Your task to perform on an android device: open app "Messenger Lite" (install if not already installed) and go to login screen Image 0: 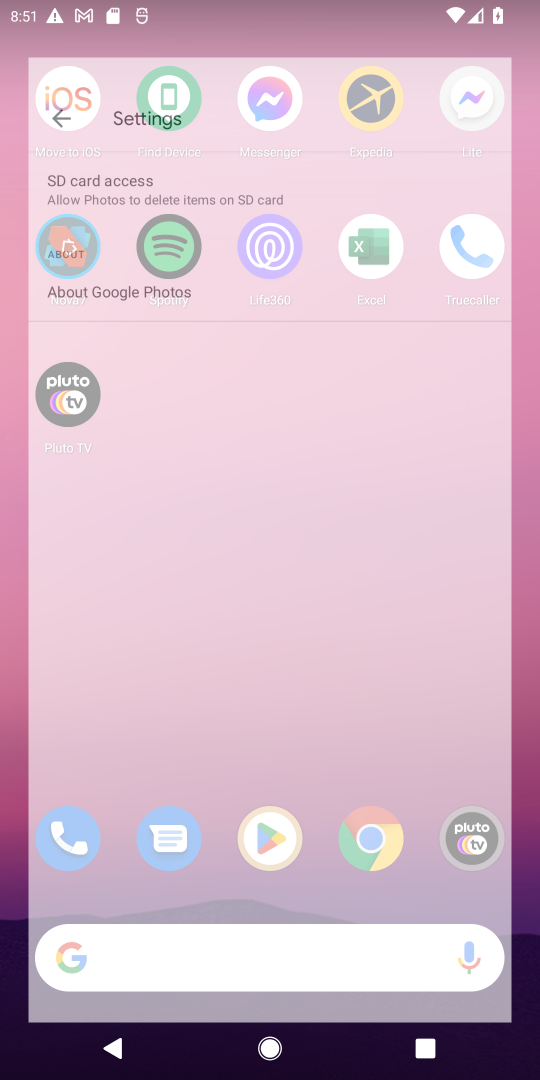
Step 0: press home button
Your task to perform on an android device: open app "Messenger Lite" (install if not already installed) and go to login screen Image 1: 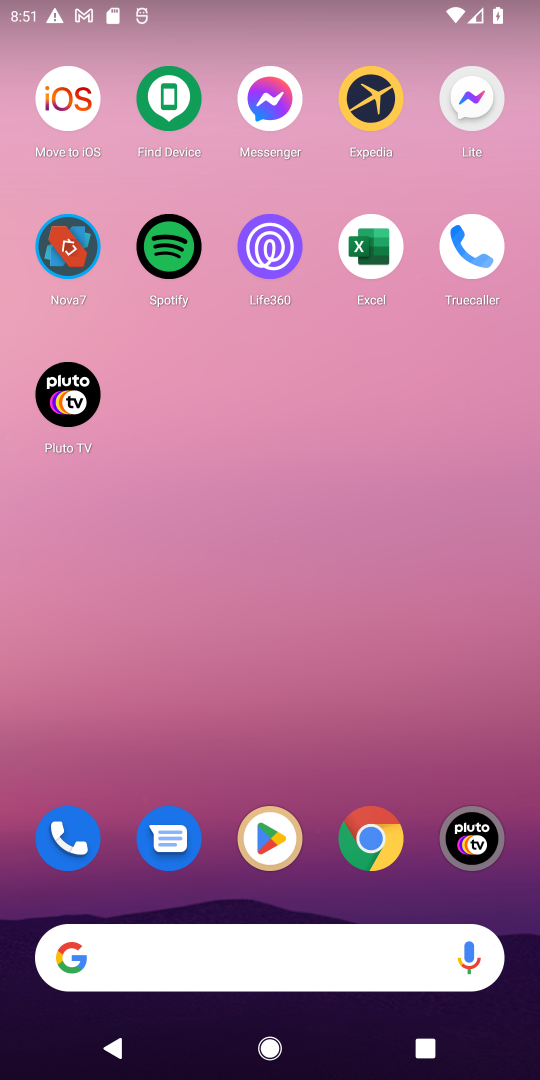
Step 1: click (265, 834)
Your task to perform on an android device: open app "Messenger Lite" (install if not already installed) and go to login screen Image 2: 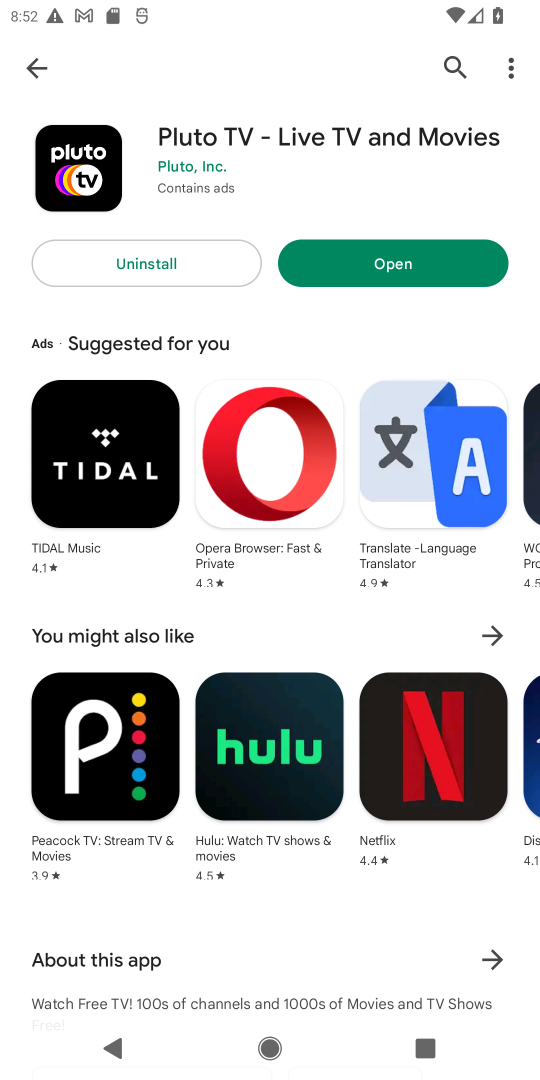
Step 2: click (451, 55)
Your task to perform on an android device: open app "Messenger Lite" (install if not already installed) and go to login screen Image 3: 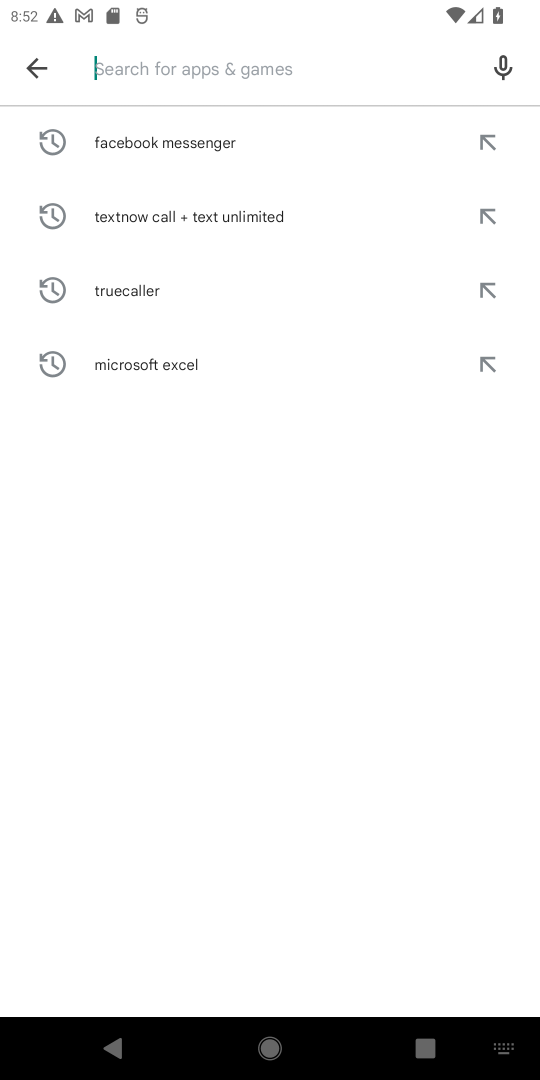
Step 3: type "Messenger Lite"
Your task to perform on an android device: open app "Messenger Lite" (install if not already installed) and go to login screen Image 4: 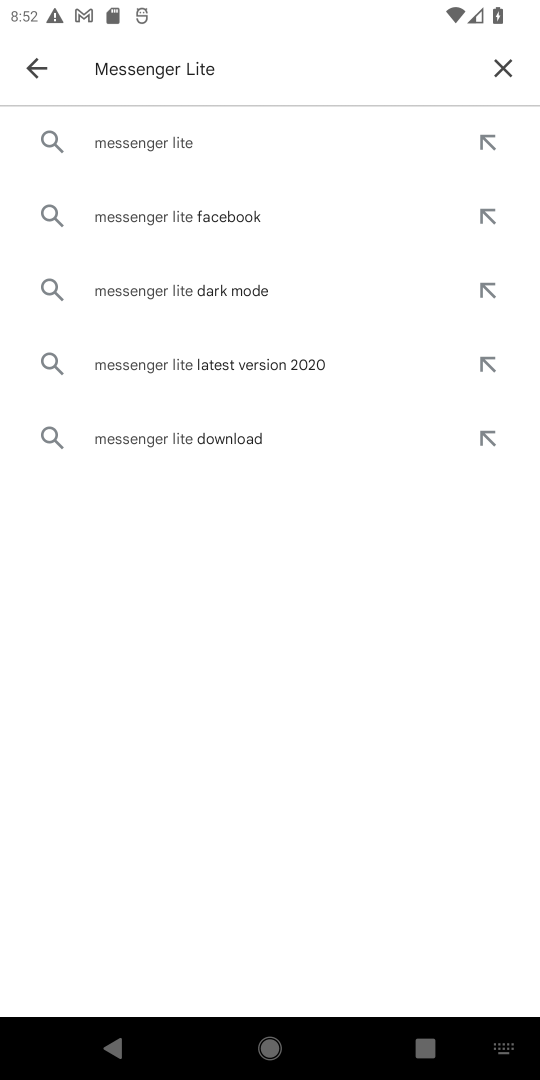
Step 4: click (207, 140)
Your task to perform on an android device: open app "Messenger Lite" (install if not already installed) and go to login screen Image 5: 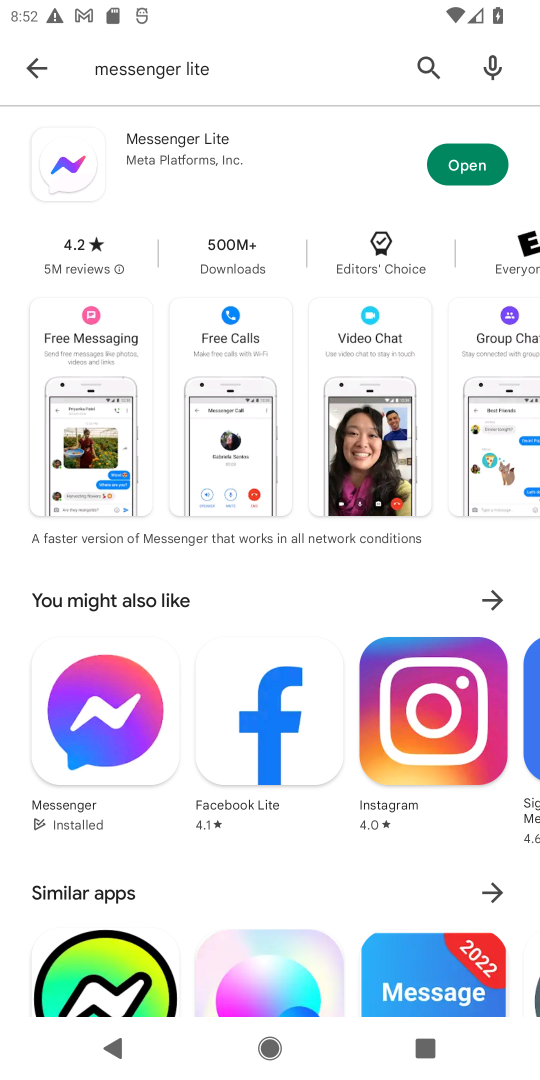
Step 5: click (470, 166)
Your task to perform on an android device: open app "Messenger Lite" (install if not already installed) and go to login screen Image 6: 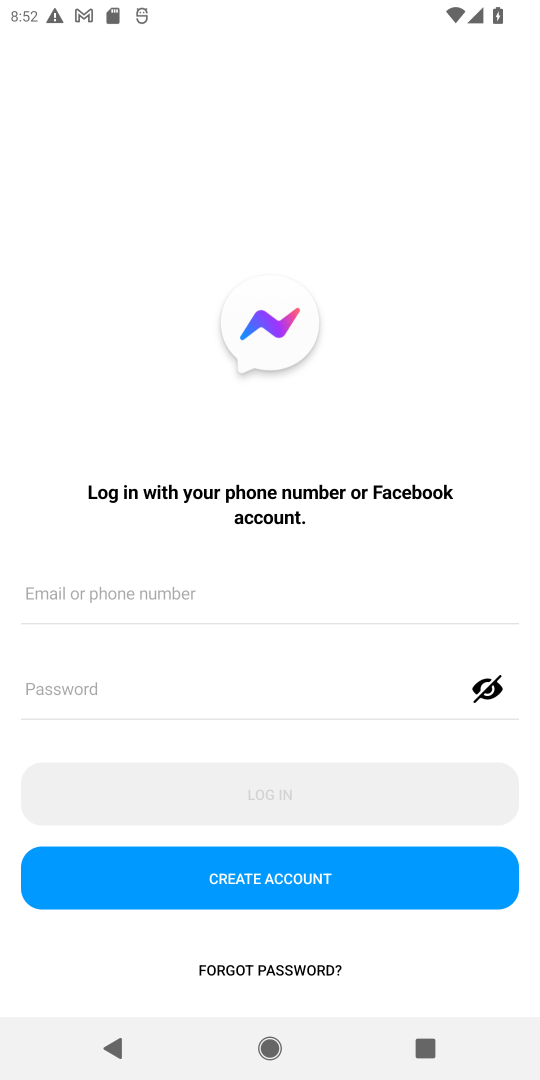
Step 6: task complete